Your task to perform on an android device: Open Google Chrome and open the bookmarks view Image 0: 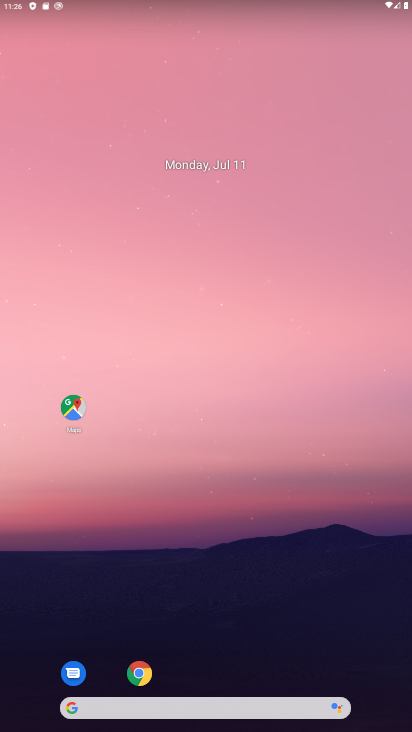
Step 0: click (148, 673)
Your task to perform on an android device: Open Google Chrome and open the bookmarks view Image 1: 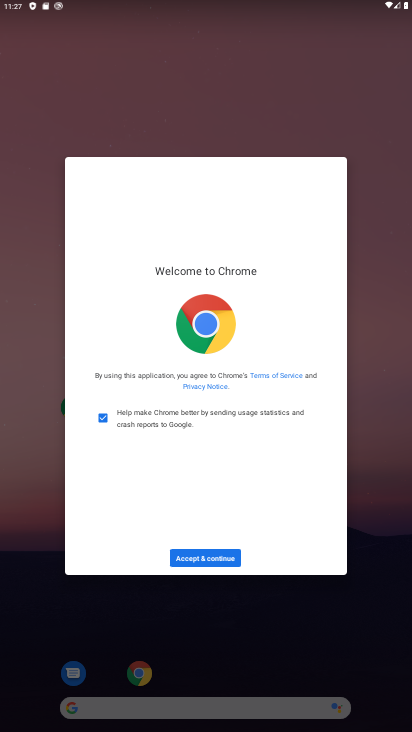
Step 1: click (196, 554)
Your task to perform on an android device: Open Google Chrome and open the bookmarks view Image 2: 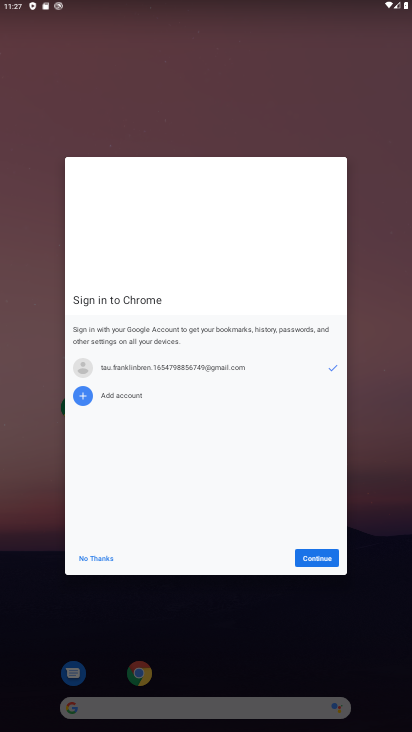
Step 2: click (298, 564)
Your task to perform on an android device: Open Google Chrome and open the bookmarks view Image 3: 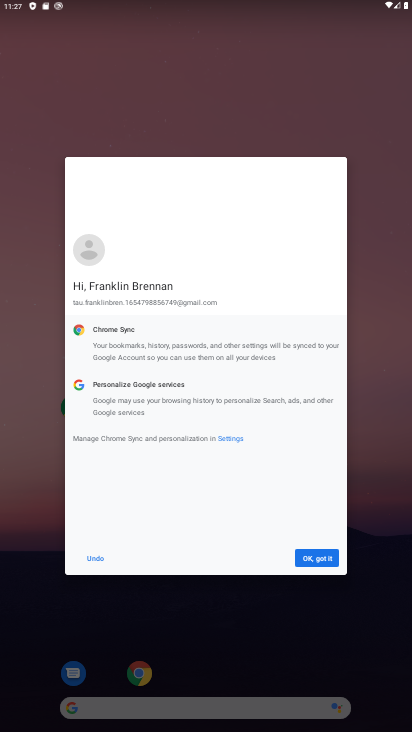
Step 3: click (322, 557)
Your task to perform on an android device: Open Google Chrome and open the bookmarks view Image 4: 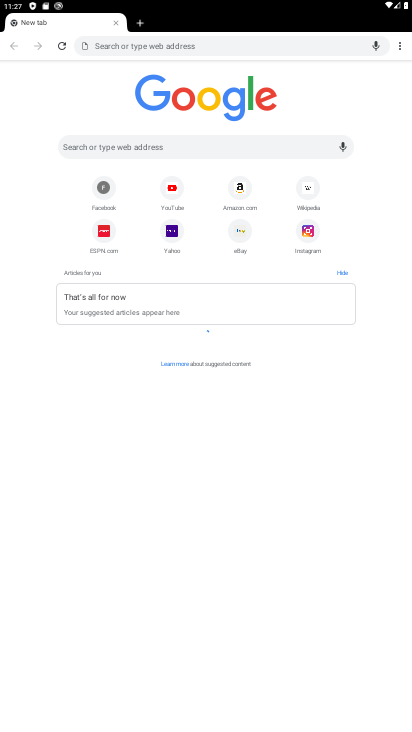
Step 4: click (401, 47)
Your task to perform on an android device: Open Google Chrome and open the bookmarks view Image 5: 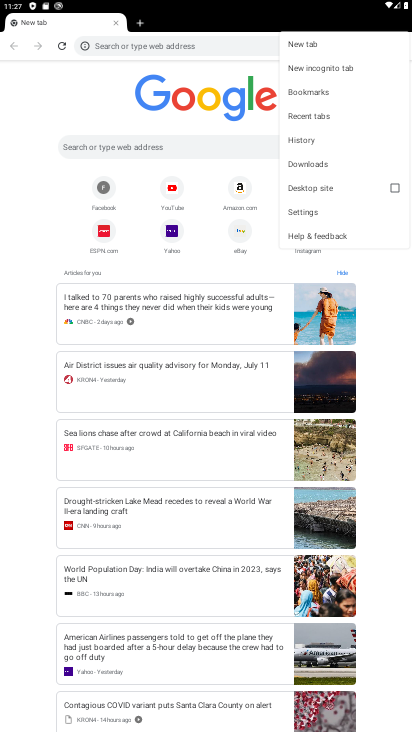
Step 5: click (304, 92)
Your task to perform on an android device: Open Google Chrome and open the bookmarks view Image 6: 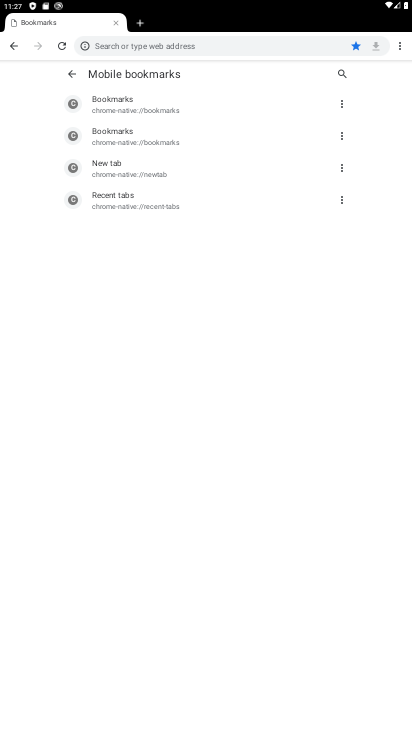
Step 6: task complete